Your task to perform on an android device: change the clock style Image 0: 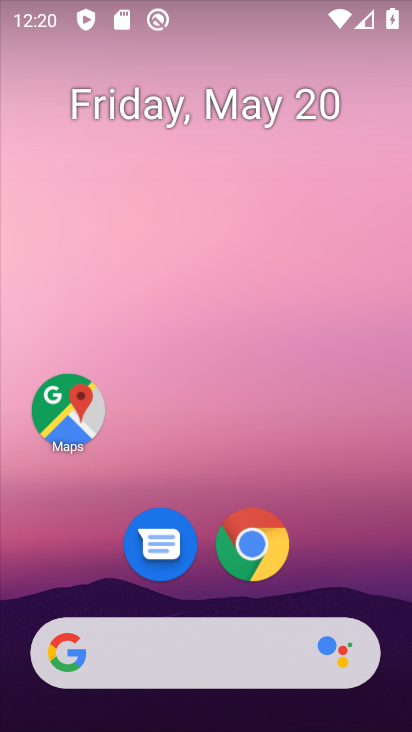
Step 0: drag from (352, 543) to (309, 47)
Your task to perform on an android device: change the clock style Image 1: 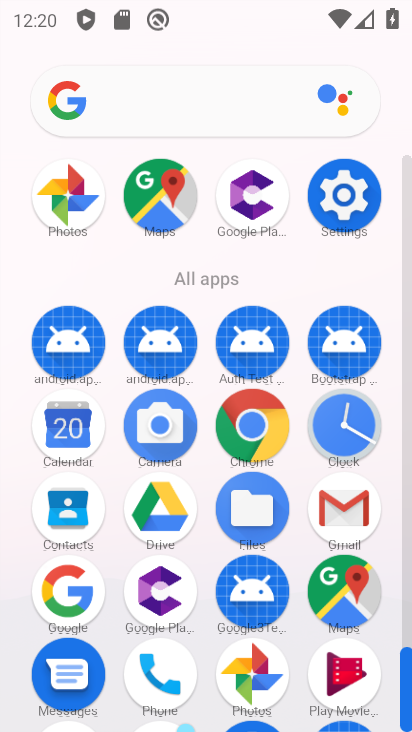
Step 1: drag from (340, 402) to (101, 224)
Your task to perform on an android device: change the clock style Image 2: 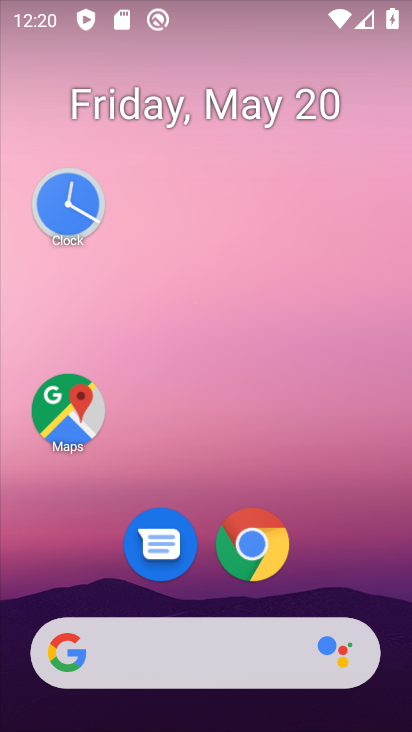
Step 2: click (82, 201)
Your task to perform on an android device: change the clock style Image 3: 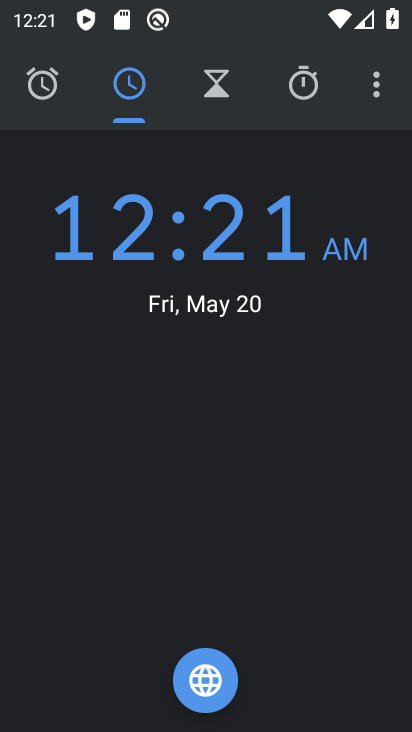
Step 3: click (374, 87)
Your task to perform on an android device: change the clock style Image 4: 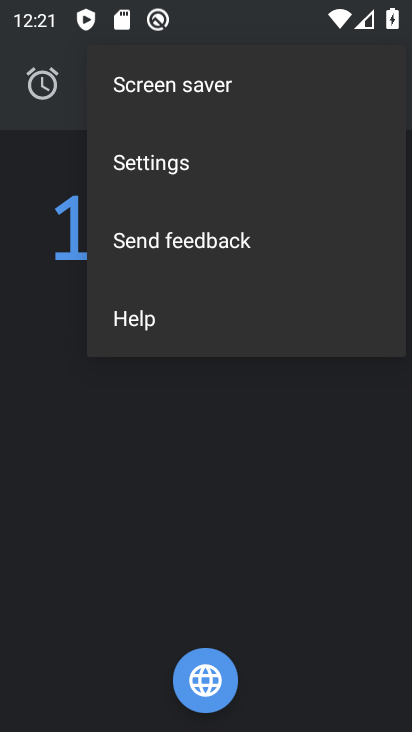
Step 4: click (203, 171)
Your task to perform on an android device: change the clock style Image 5: 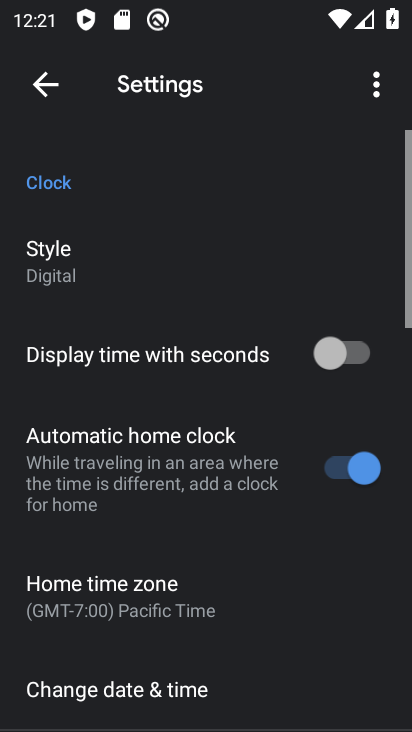
Step 5: click (74, 262)
Your task to perform on an android device: change the clock style Image 6: 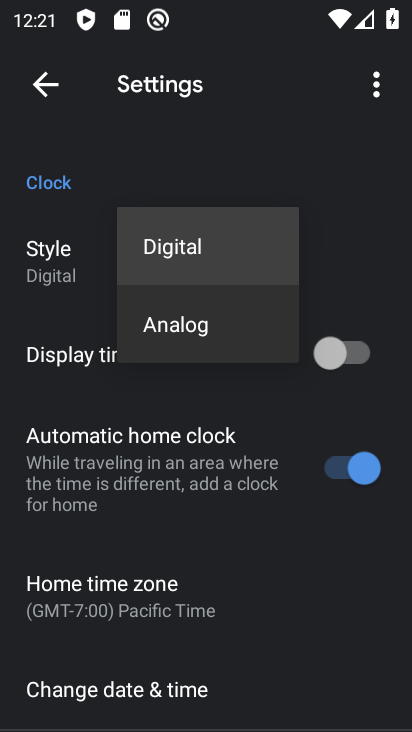
Step 6: click (155, 304)
Your task to perform on an android device: change the clock style Image 7: 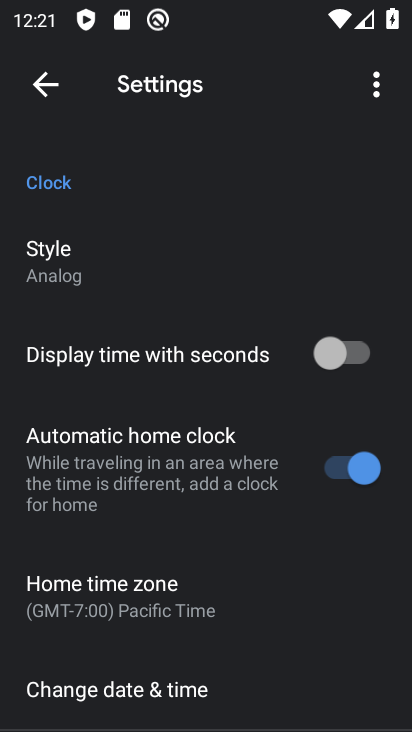
Step 7: task complete